Your task to perform on an android device: Add "amazon basics triple a" to the cart on amazon.com, then select checkout. Image 0: 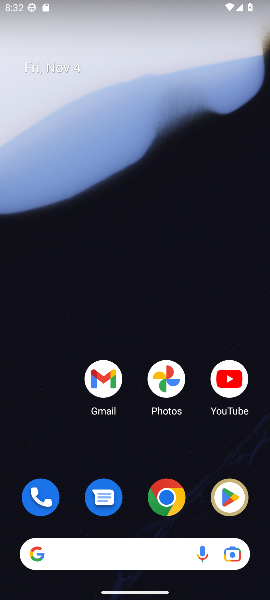
Step 0: click (158, 497)
Your task to perform on an android device: Add "amazon basics triple a" to the cart on amazon.com, then select checkout. Image 1: 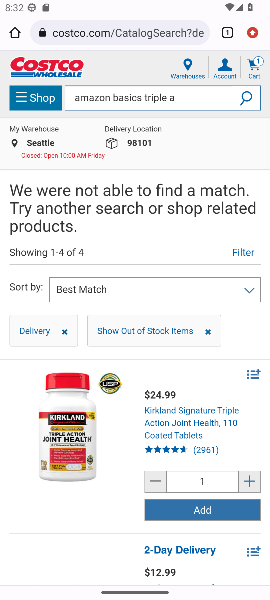
Step 1: click (92, 36)
Your task to perform on an android device: Add "amazon basics triple a" to the cart on amazon.com, then select checkout. Image 2: 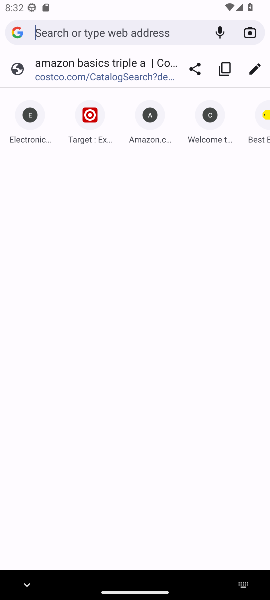
Step 2: click (150, 123)
Your task to perform on an android device: Add "amazon basics triple a" to the cart on amazon.com, then select checkout. Image 3: 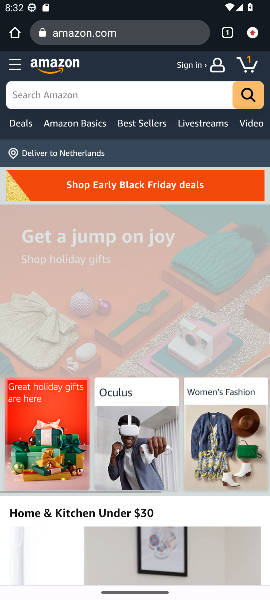
Step 3: click (122, 91)
Your task to perform on an android device: Add "amazon basics triple a" to the cart on amazon.com, then select checkout. Image 4: 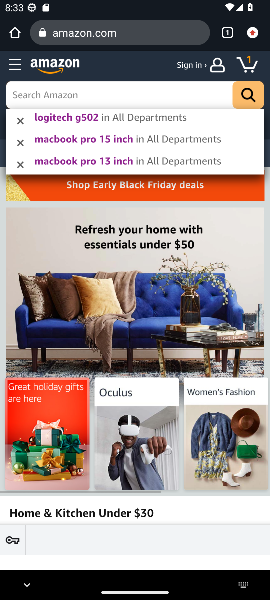
Step 4: type "amazon basics triple a"
Your task to perform on an android device: Add "amazon basics triple a" to the cart on amazon.com, then select checkout. Image 5: 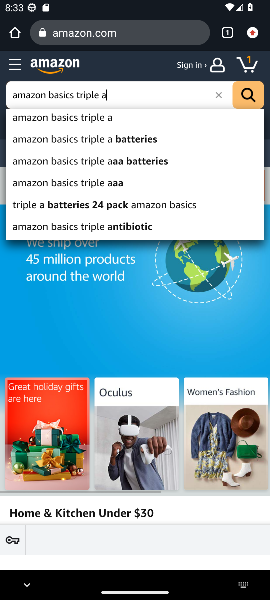
Step 5: click (78, 121)
Your task to perform on an android device: Add "amazon basics triple a" to the cart on amazon.com, then select checkout. Image 6: 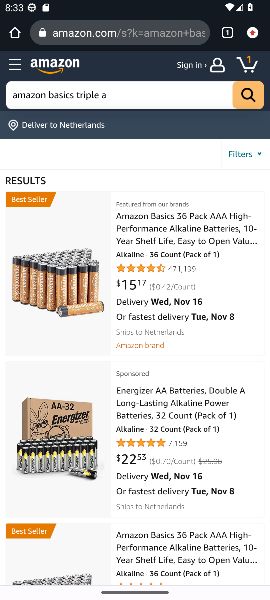
Step 6: click (108, 282)
Your task to perform on an android device: Add "amazon basics triple a" to the cart on amazon.com, then select checkout. Image 7: 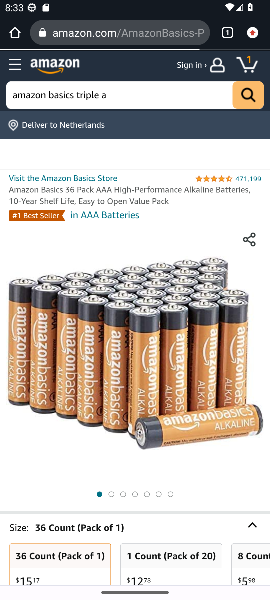
Step 7: drag from (131, 363) to (99, 128)
Your task to perform on an android device: Add "amazon basics triple a" to the cart on amazon.com, then select checkout. Image 8: 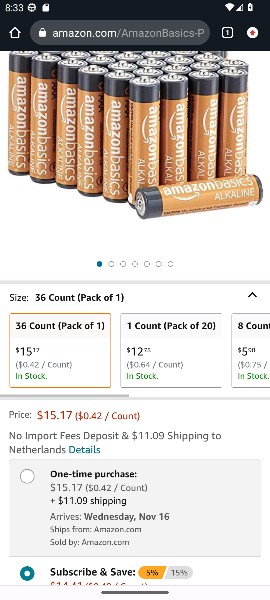
Step 8: drag from (121, 470) to (98, 205)
Your task to perform on an android device: Add "amazon basics triple a" to the cart on amazon.com, then select checkout. Image 9: 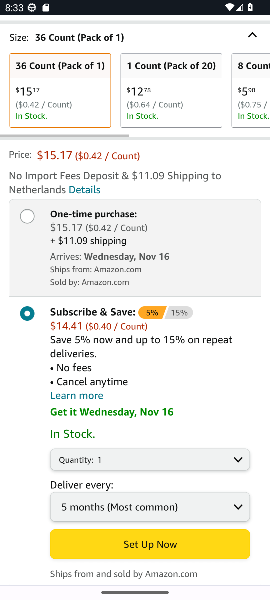
Step 9: click (34, 217)
Your task to perform on an android device: Add "amazon basics triple a" to the cart on amazon.com, then select checkout. Image 10: 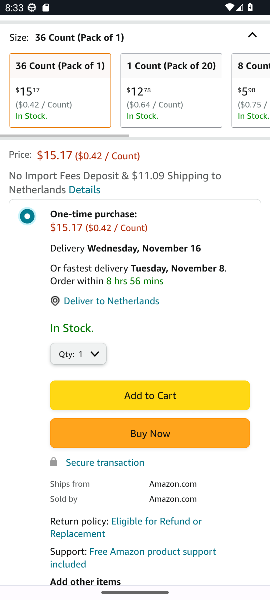
Step 10: click (138, 395)
Your task to perform on an android device: Add "amazon basics triple a" to the cart on amazon.com, then select checkout. Image 11: 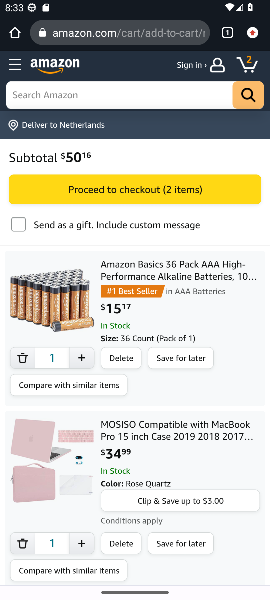
Step 11: click (106, 195)
Your task to perform on an android device: Add "amazon basics triple a" to the cart on amazon.com, then select checkout. Image 12: 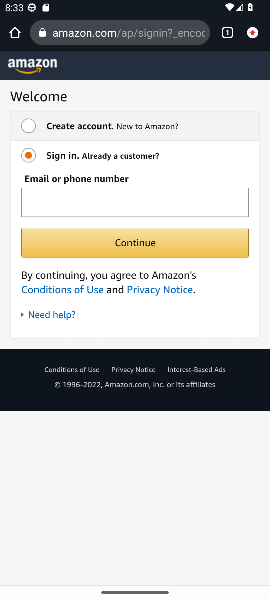
Step 12: task complete